Your task to perform on an android device: Go to eBay Image 0: 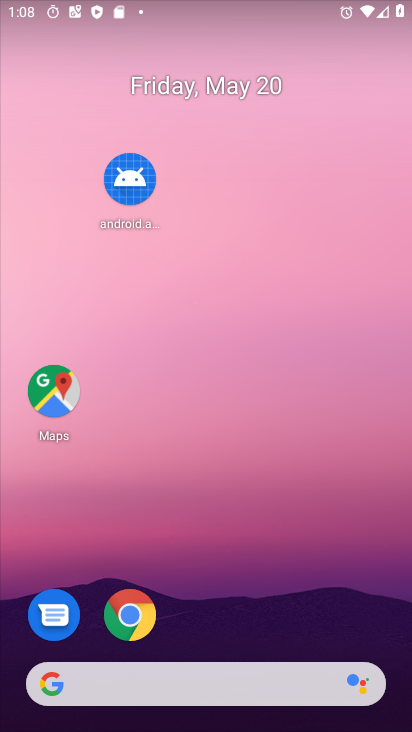
Step 0: click (135, 597)
Your task to perform on an android device: Go to eBay Image 1: 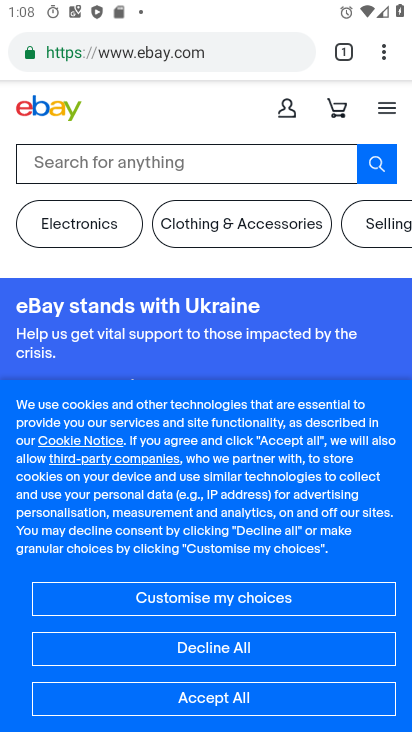
Step 1: task complete